Your task to perform on an android device: open chrome and create a bookmark for the current page Image 0: 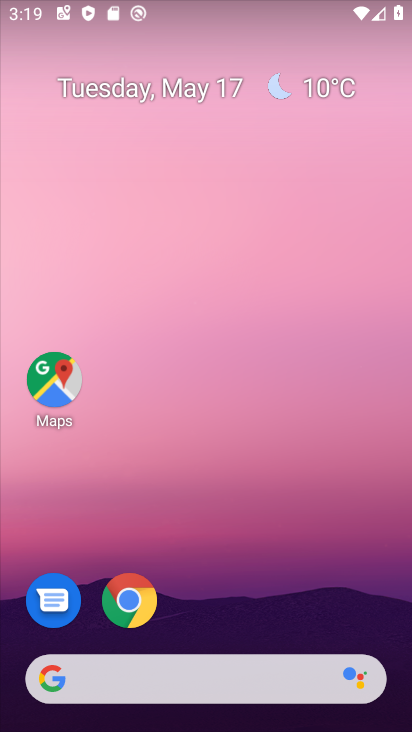
Step 0: click (145, 610)
Your task to perform on an android device: open chrome and create a bookmark for the current page Image 1: 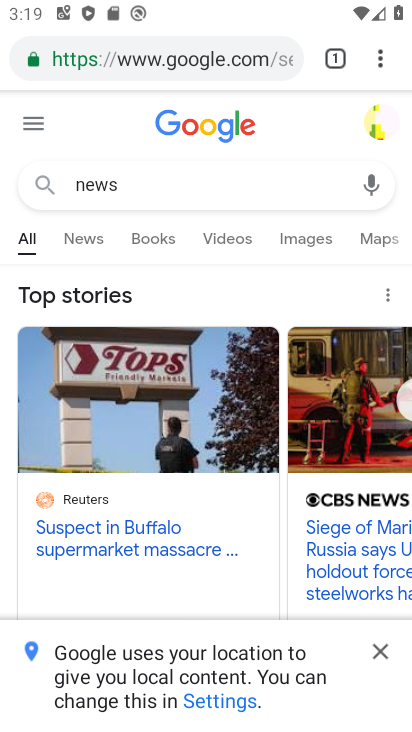
Step 1: click (375, 67)
Your task to perform on an android device: open chrome and create a bookmark for the current page Image 2: 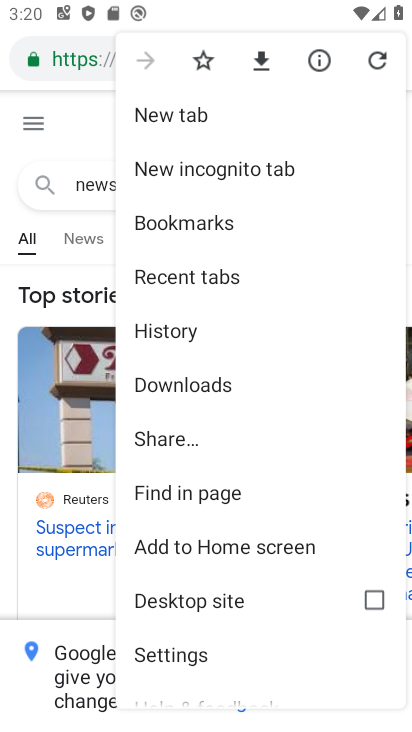
Step 2: drag from (270, 378) to (203, 522)
Your task to perform on an android device: open chrome and create a bookmark for the current page Image 3: 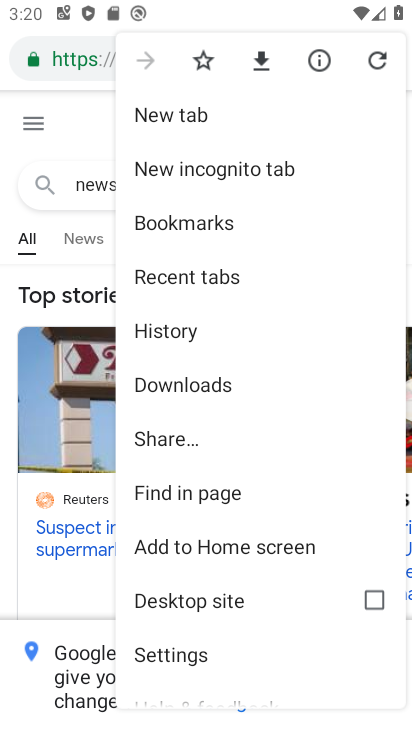
Step 3: click (209, 64)
Your task to perform on an android device: open chrome and create a bookmark for the current page Image 4: 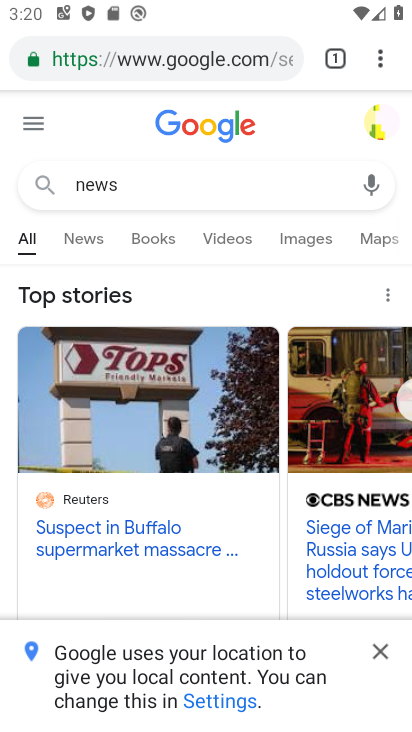
Step 4: task complete